Your task to perform on an android device: turn off data saver in the chrome app Image 0: 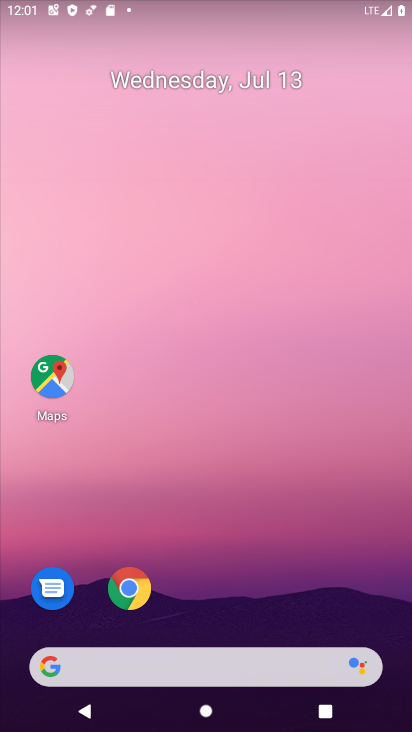
Step 0: click (132, 581)
Your task to perform on an android device: turn off data saver in the chrome app Image 1: 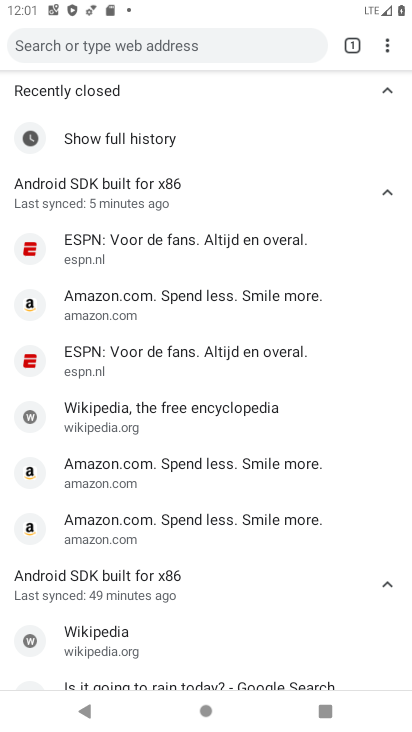
Step 1: click (386, 45)
Your task to perform on an android device: turn off data saver in the chrome app Image 2: 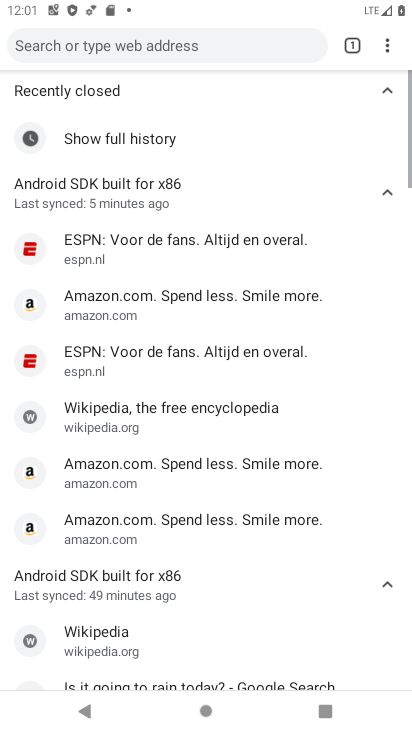
Step 2: click (384, 38)
Your task to perform on an android device: turn off data saver in the chrome app Image 3: 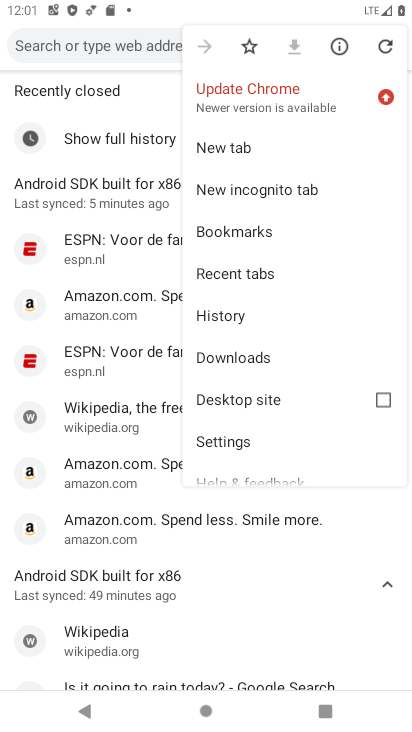
Step 3: click (230, 434)
Your task to perform on an android device: turn off data saver in the chrome app Image 4: 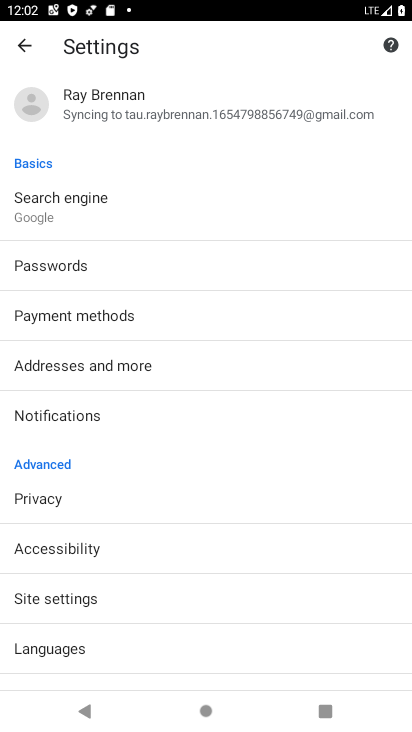
Step 4: drag from (172, 541) to (181, 274)
Your task to perform on an android device: turn off data saver in the chrome app Image 5: 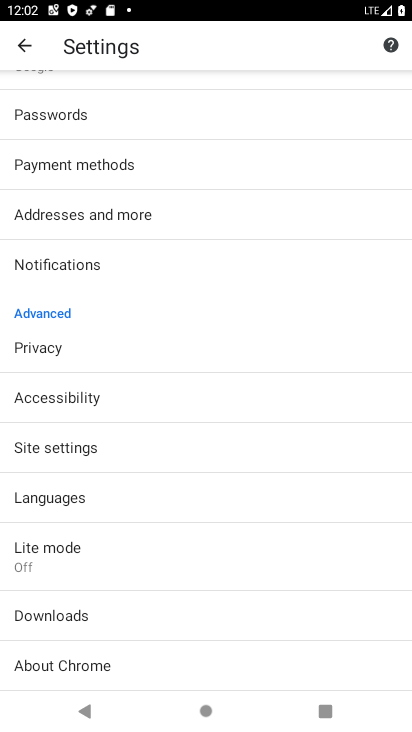
Step 5: click (37, 554)
Your task to perform on an android device: turn off data saver in the chrome app Image 6: 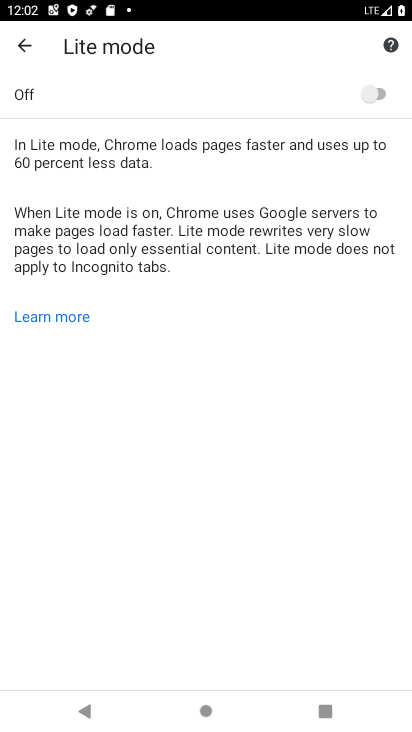
Step 6: task complete